Your task to perform on an android device: Search for flights from Helsinki to Seoul Image 0: 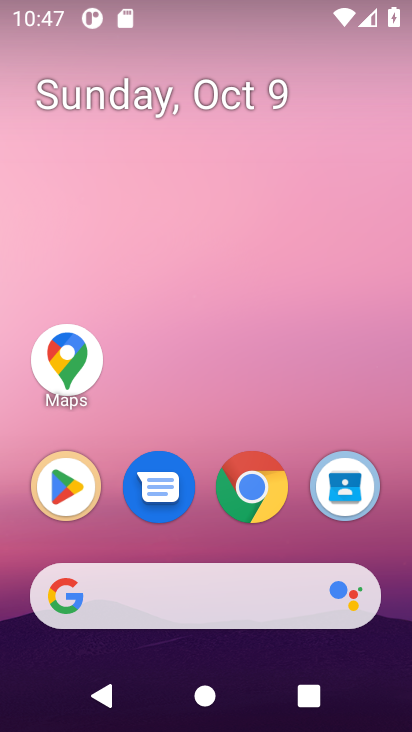
Step 0: click (252, 504)
Your task to perform on an android device: Search for flights from Helsinki to Seoul Image 1: 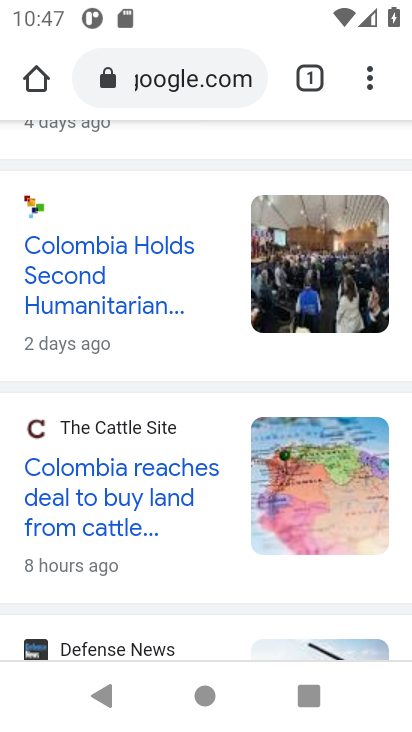
Step 1: click (194, 81)
Your task to perform on an android device: Search for flights from Helsinki to Seoul Image 2: 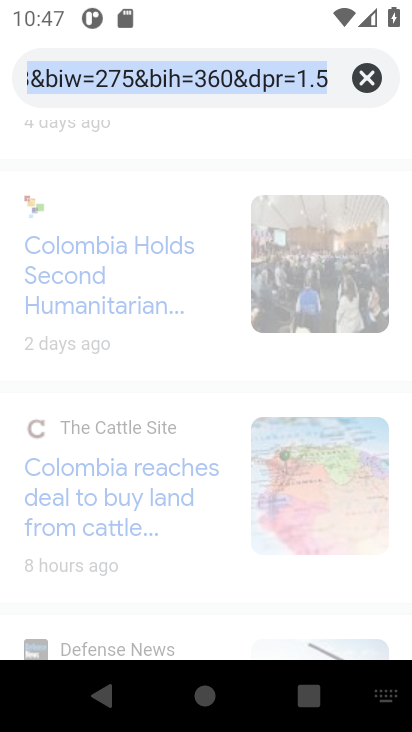
Step 2: type "flights from helsinki to seoul"
Your task to perform on an android device: Search for flights from Helsinki to Seoul Image 3: 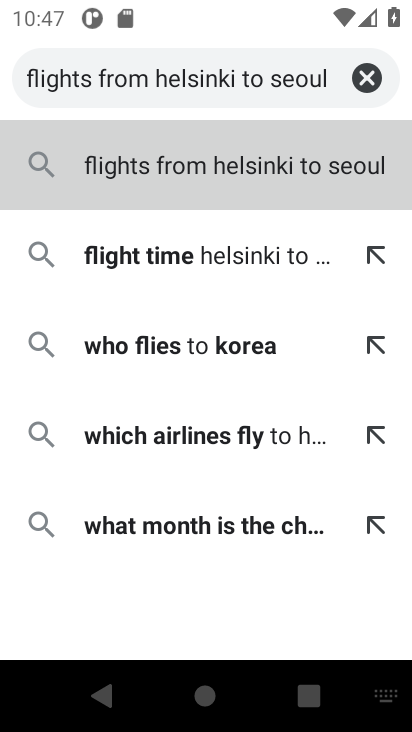
Step 3: press enter
Your task to perform on an android device: Search for flights from Helsinki to Seoul Image 4: 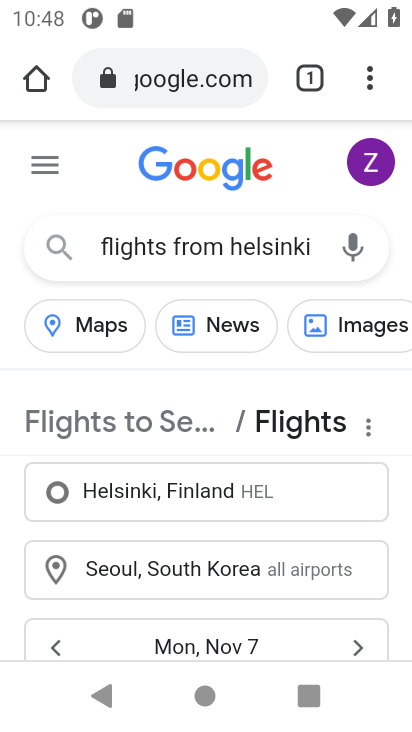
Step 4: drag from (315, 490) to (295, 235)
Your task to perform on an android device: Search for flights from Helsinki to Seoul Image 5: 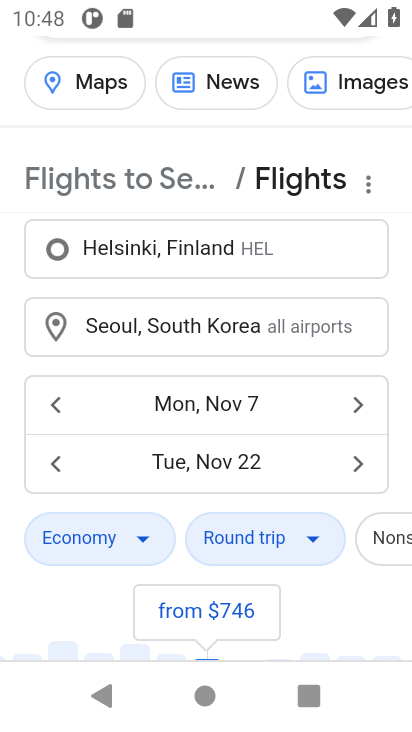
Step 5: drag from (239, 586) to (210, 203)
Your task to perform on an android device: Search for flights from Helsinki to Seoul Image 6: 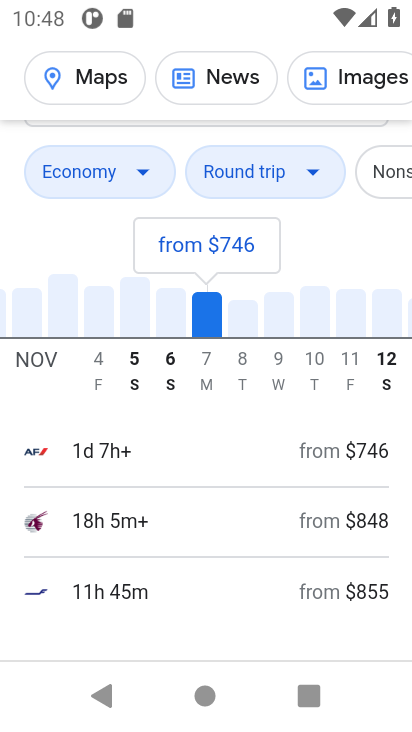
Step 6: drag from (280, 534) to (245, 265)
Your task to perform on an android device: Search for flights from Helsinki to Seoul Image 7: 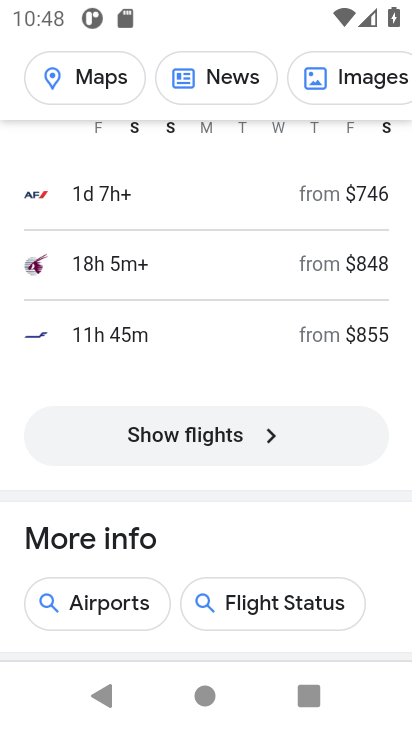
Step 7: click (233, 428)
Your task to perform on an android device: Search for flights from Helsinki to Seoul Image 8: 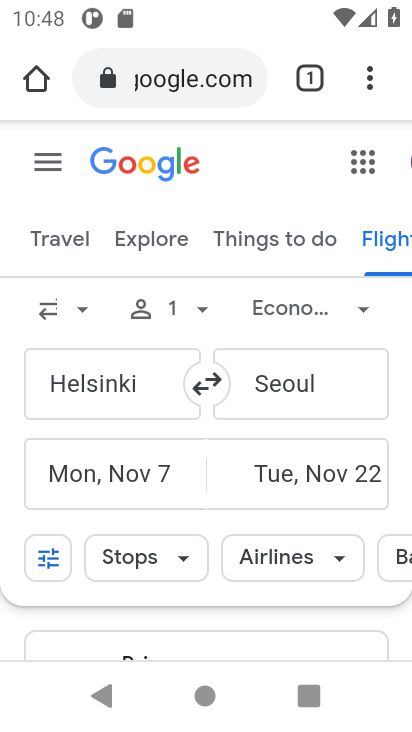
Step 8: task complete